Your task to perform on an android device: toggle data saver in the chrome app Image 0: 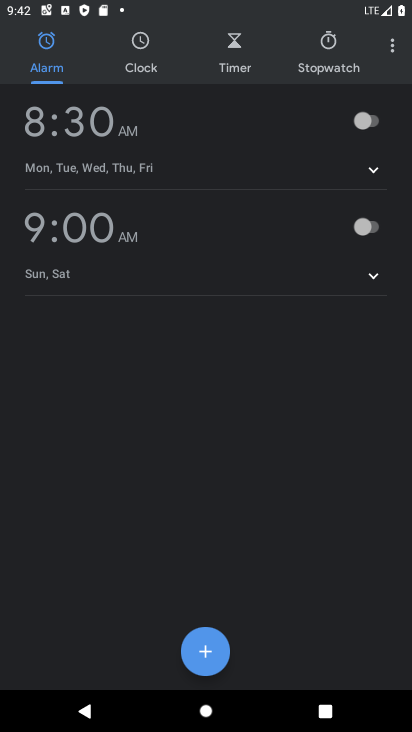
Step 0: press home button
Your task to perform on an android device: toggle data saver in the chrome app Image 1: 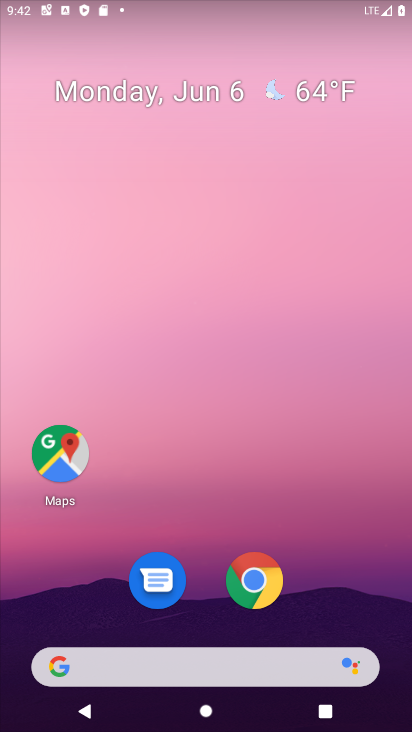
Step 1: drag from (287, 270) to (324, 43)
Your task to perform on an android device: toggle data saver in the chrome app Image 2: 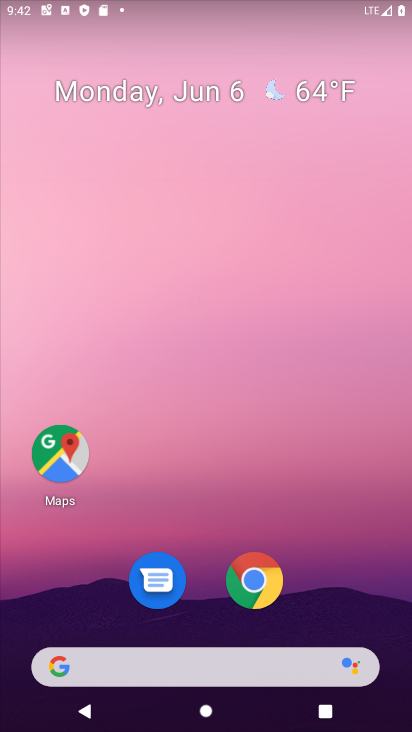
Step 2: drag from (344, 607) to (409, 28)
Your task to perform on an android device: toggle data saver in the chrome app Image 3: 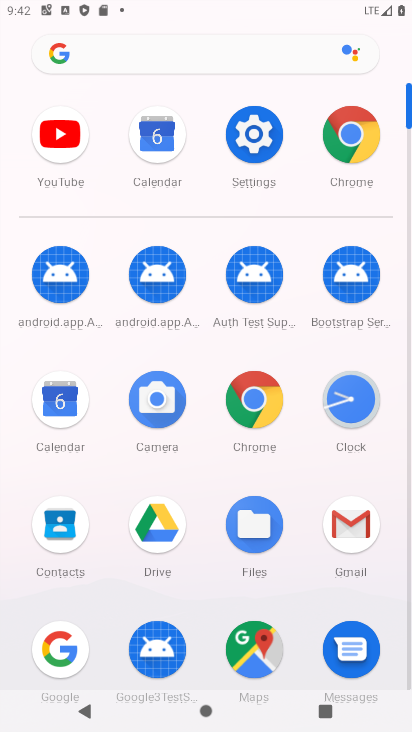
Step 3: click (351, 146)
Your task to perform on an android device: toggle data saver in the chrome app Image 4: 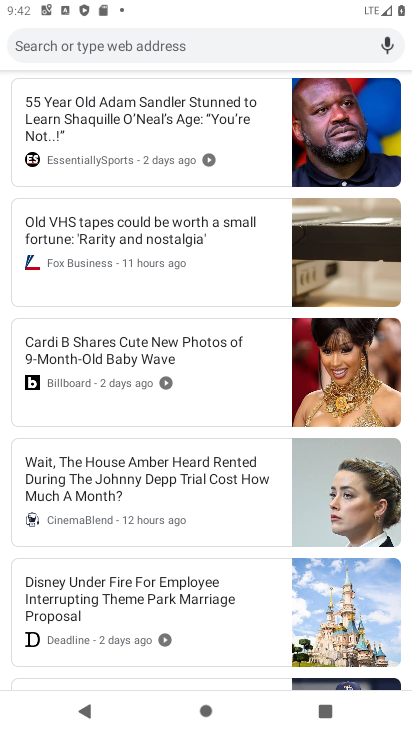
Step 4: drag from (166, 253) to (173, 658)
Your task to perform on an android device: toggle data saver in the chrome app Image 5: 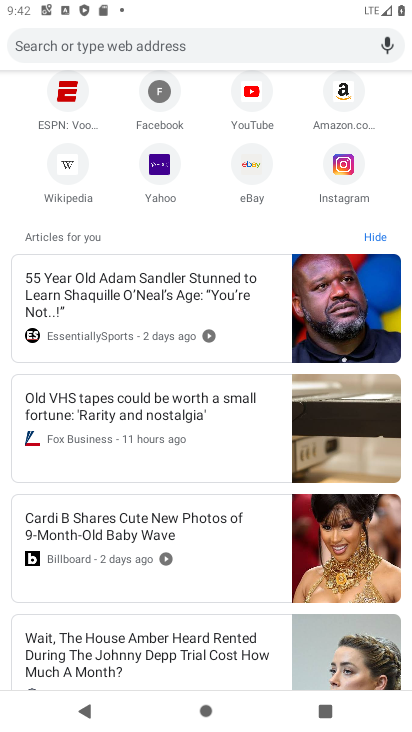
Step 5: drag from (147, 312) to (191, 731)
Your task to perform on an android device: toggle data saver in the chrome app Image 6: 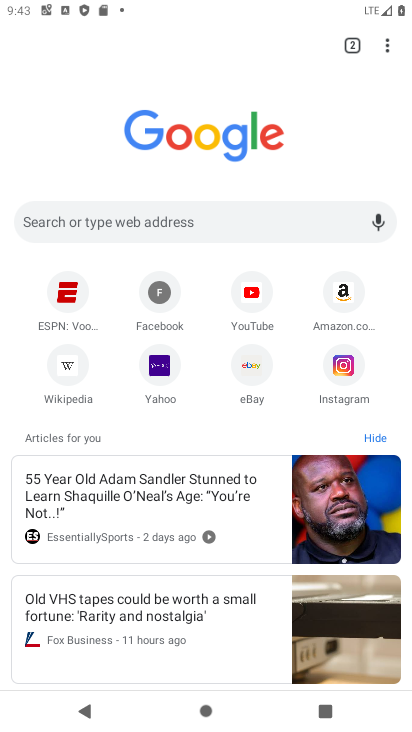
Step 6: drag from (389, 38) to (195, 390)
Your task to perform on an android device: toggle data saver in the chrome app Image 7: 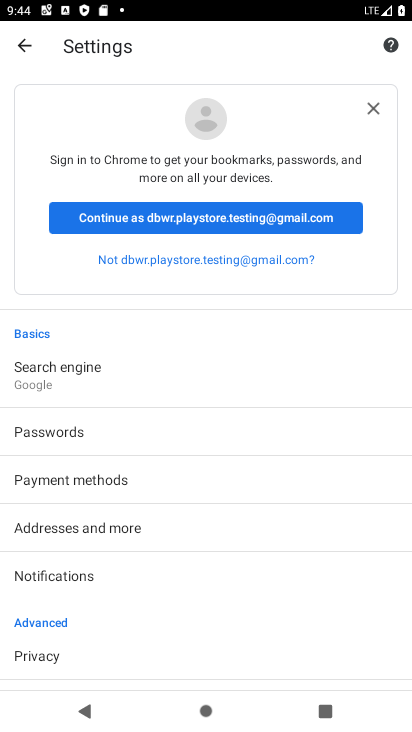
Step 7: drag from (149, 632) to (171, 153)
Your task to perform on an android device: toggle data saver in the chrome app Image 8: 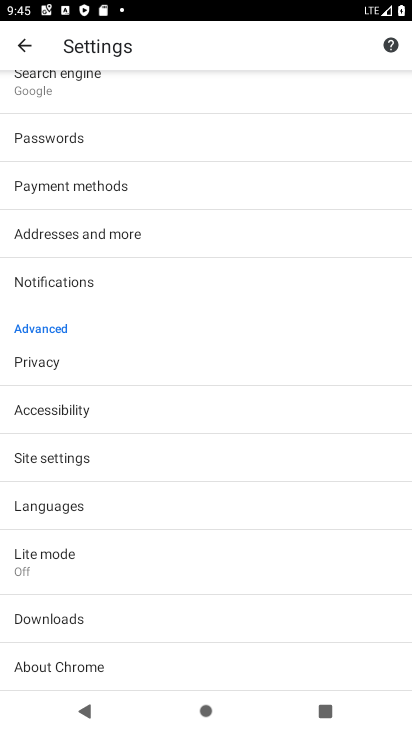
Step 8: click (73, 558)
Your task to perform on an android device: toggle data saver in the chrome app Image 9: 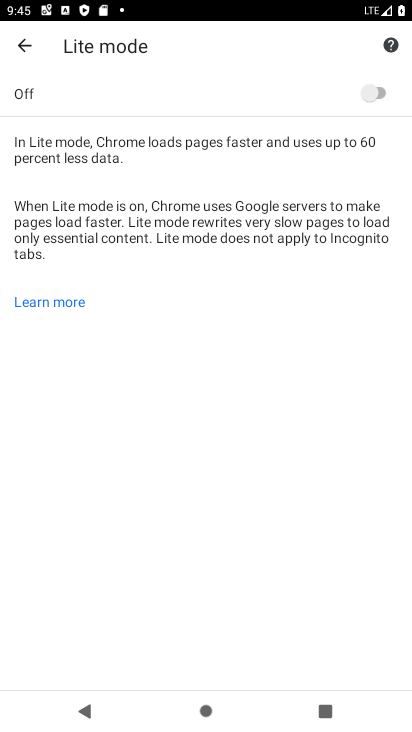
Step 9: click (377, 93)
Your task to perform on an android device: toggle data saver in the chrome app Image 10: 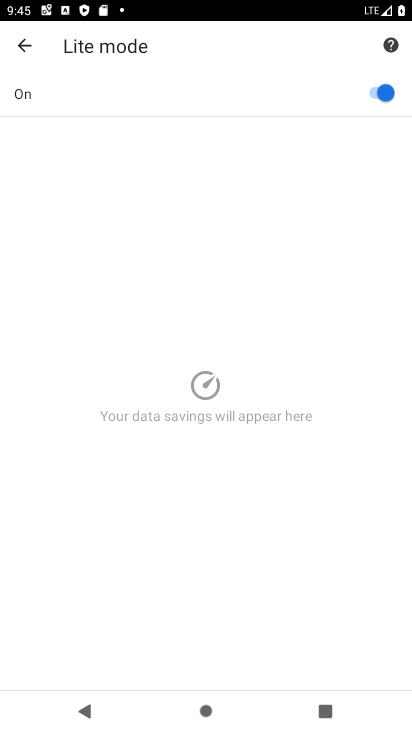
Step 10: task complete